Your task to perform on an android device: Open Google Image 0: 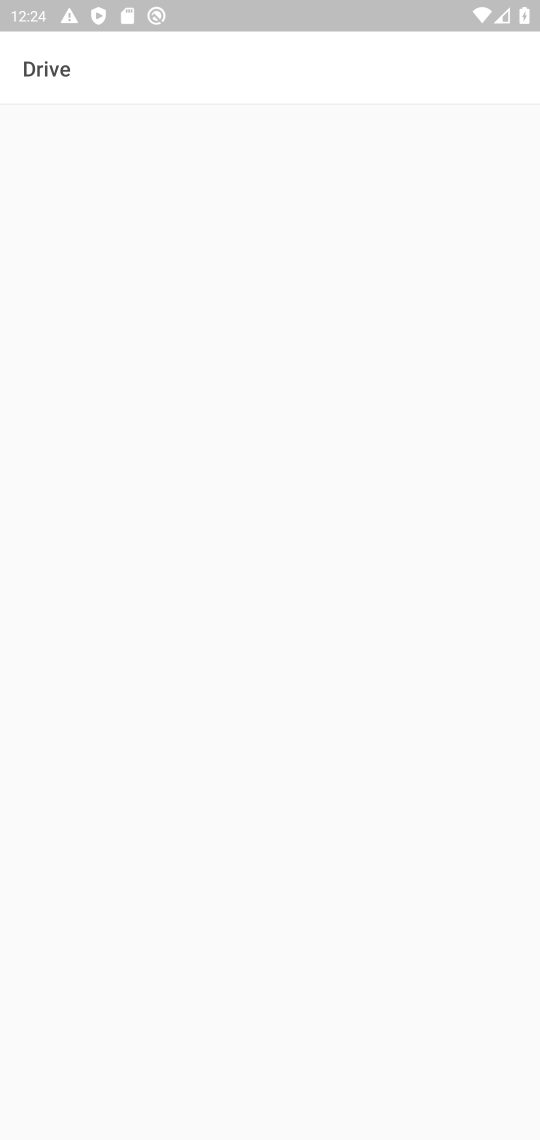
Step 0: press home button
Your task to perform on an android device: Open Google Image 1: 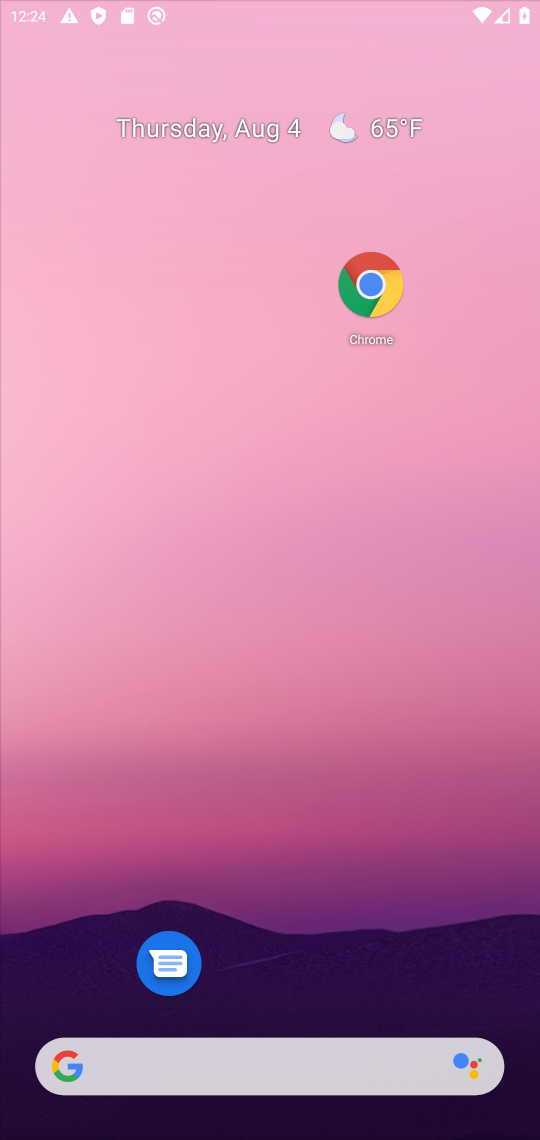
Step 1: drag from (265, 1026) to (276, 316)
Your task to perform on an android device: Open Google Image 2: 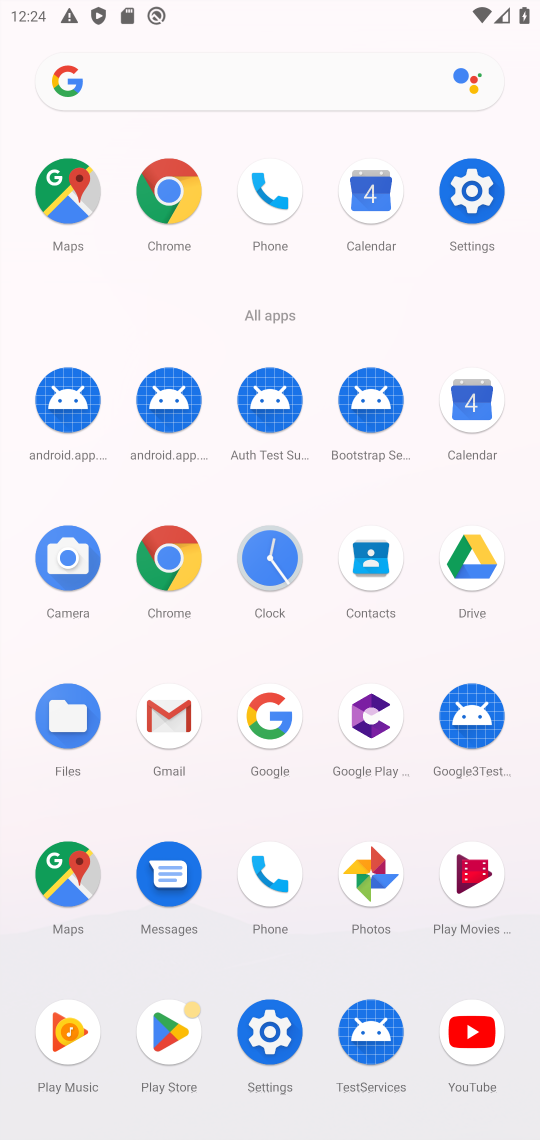
Step 2: click (258, 732)
Your task to perform on an android device: Open Google Image 3: 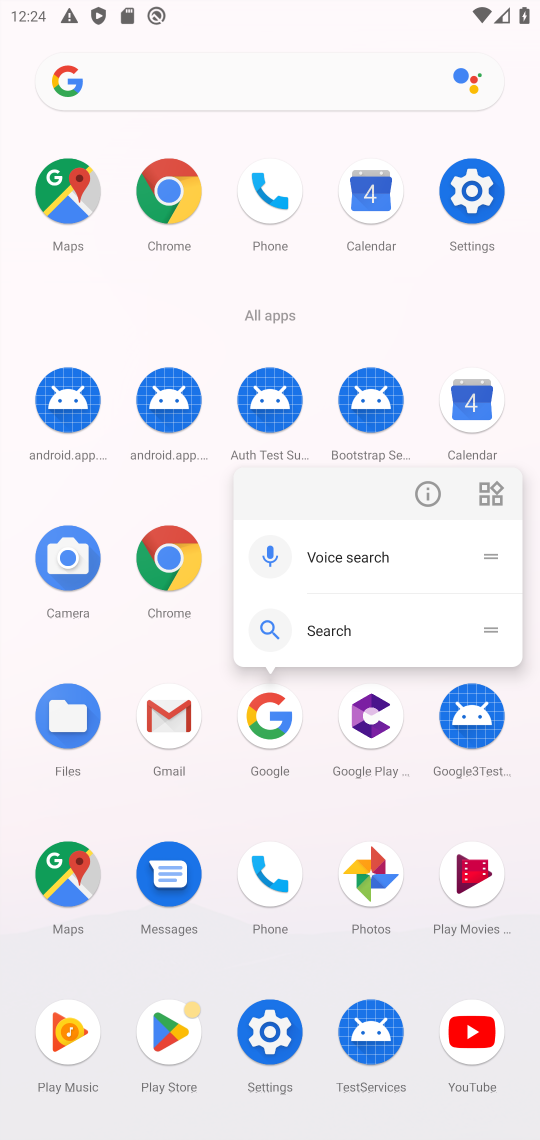
Step 3: click (258, 732)
Your task to perform on an android device: Open Google Image 4: 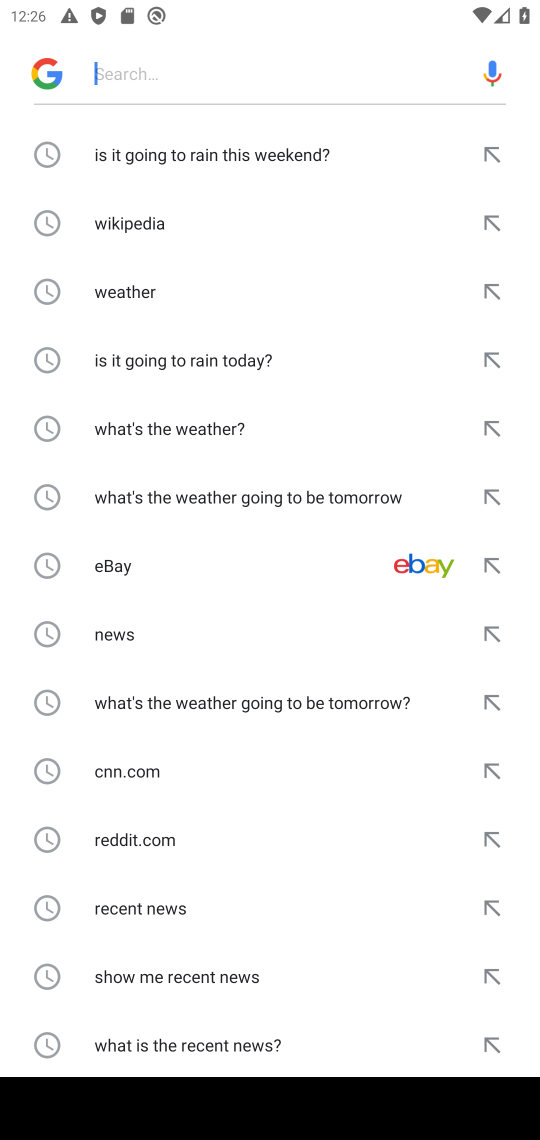
Step 4: task complete